Your task to perform on an android device: change keyboard looks Image 0: 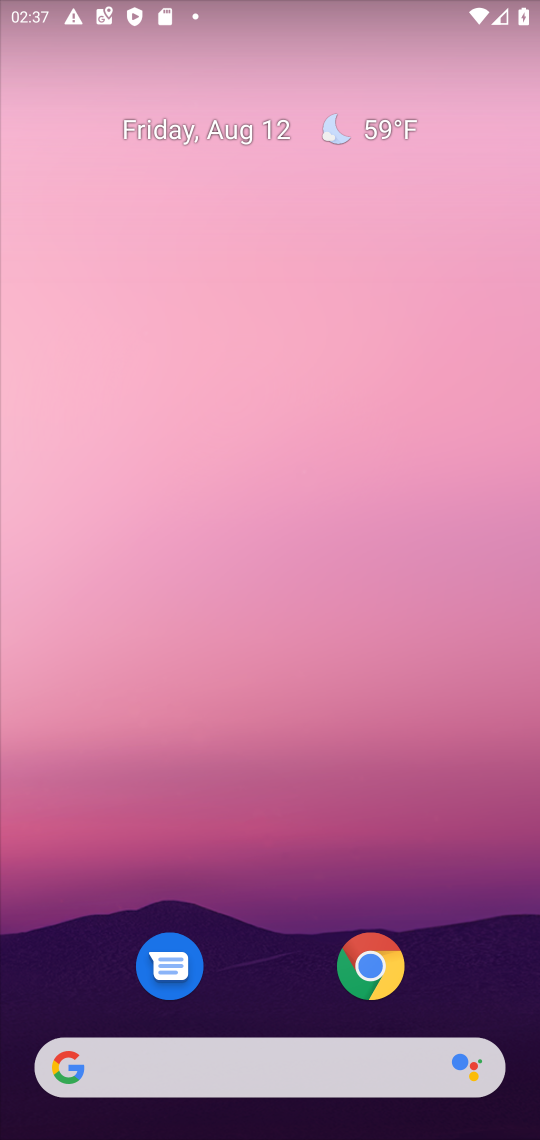
Step 0: drag from (238, 968) to (349, 131)
Your task to perform on an android device: change keyboard looks Image 1: 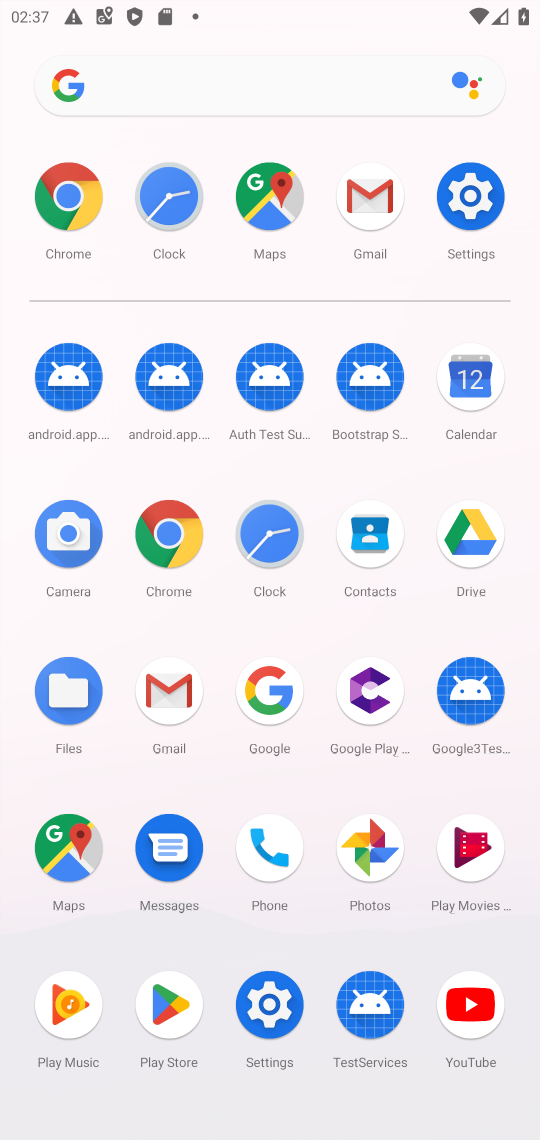
Step 1: click (269, 1017)
Your task to perform on an android device: change keyboard looks Image 2: 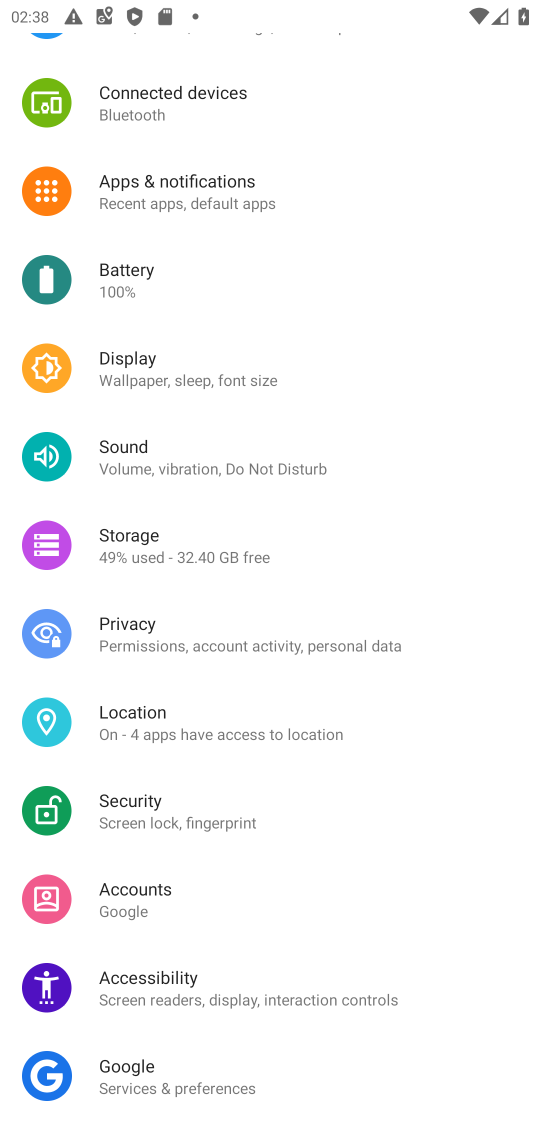
Step 2: drag from (365, 1005) to (424, 258)
Your task to perform on an android device: change keyboard looks Image 3: 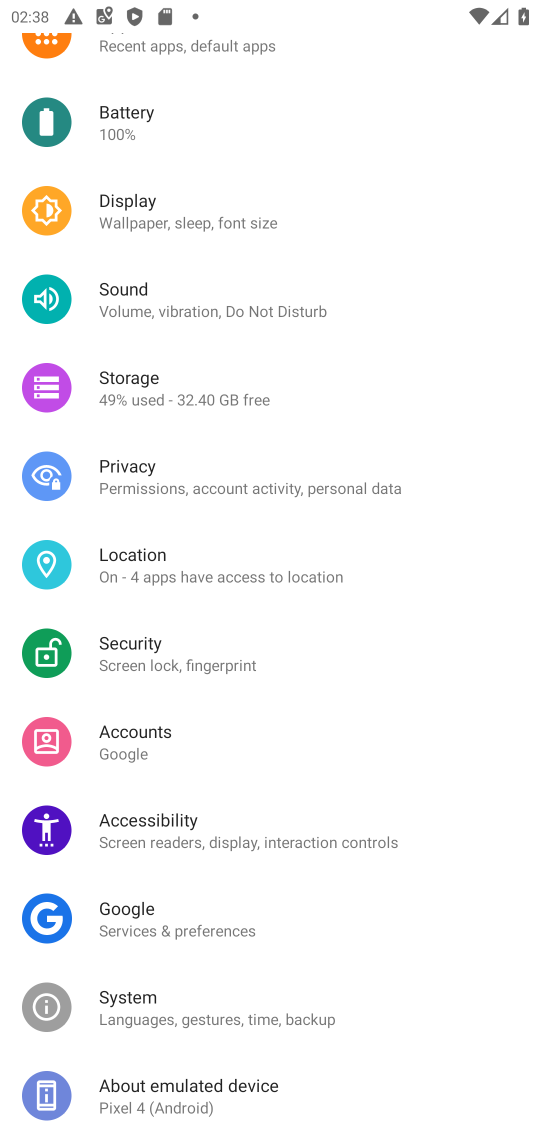
Step 3: click (184, 1015)
Your task to perform on an android device: change keyboard looks Image 4: 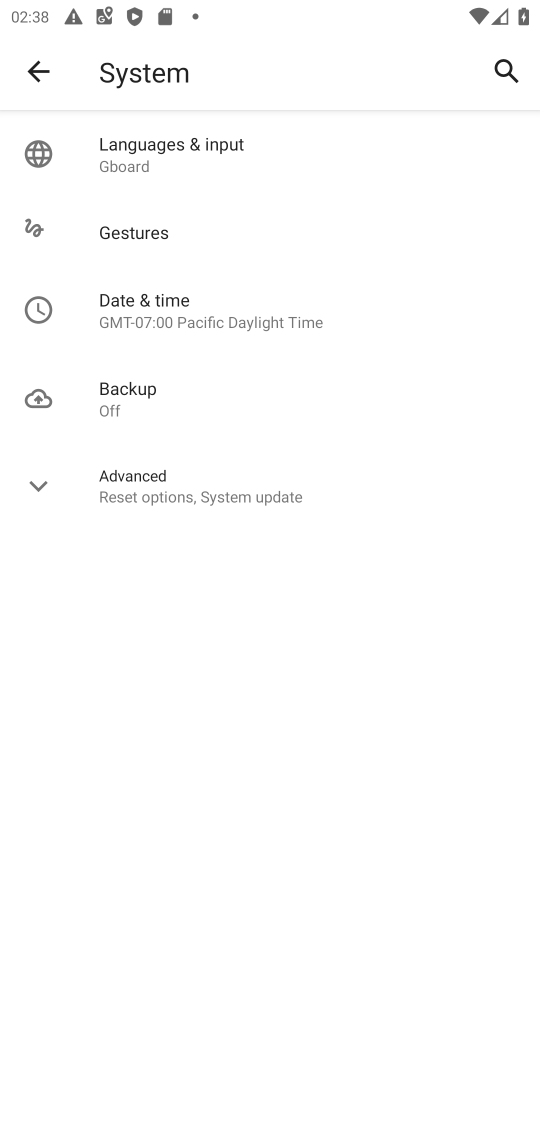
Step 4: click (166, 154)
Your task to perform on an android device: change keyboard looks Image 5: 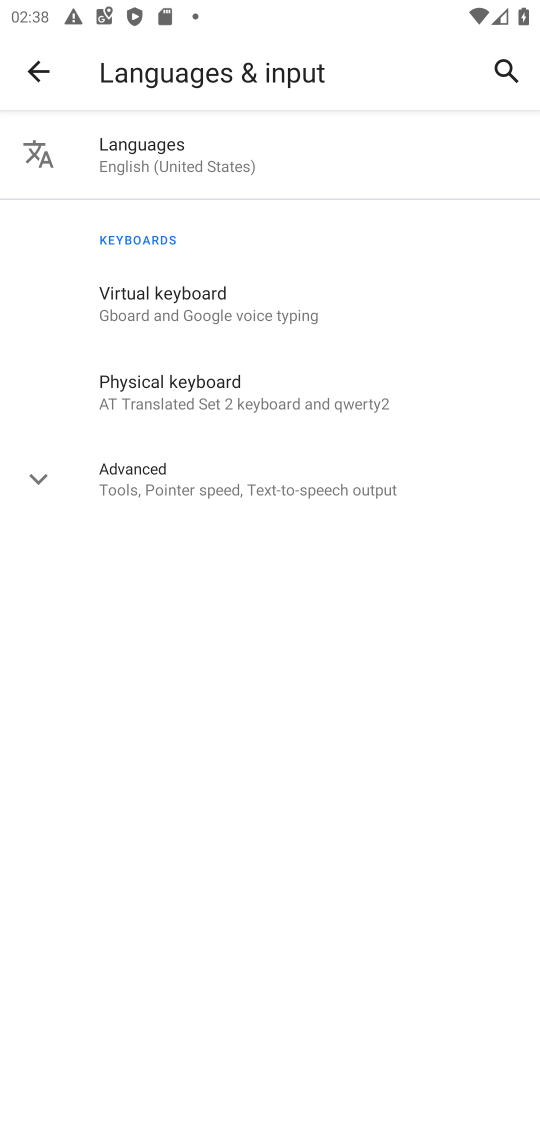
Step 5: click (180, 312)
Your task to perform on an android device: change keyboard looks Image 6: 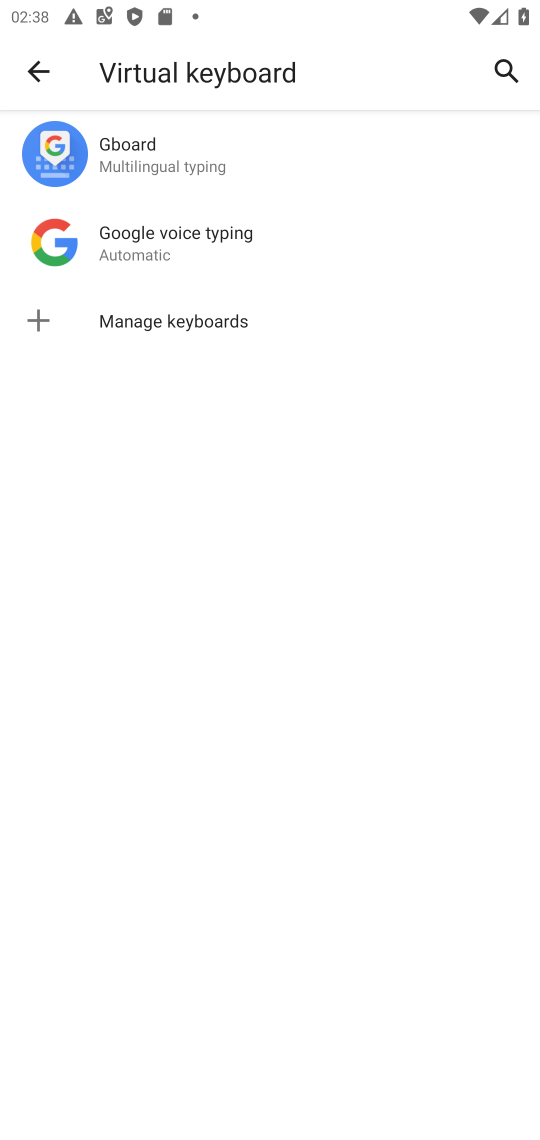
Step 6: click (153, 147)
Your task to perform on an android device: change keyboard looks Image 7: 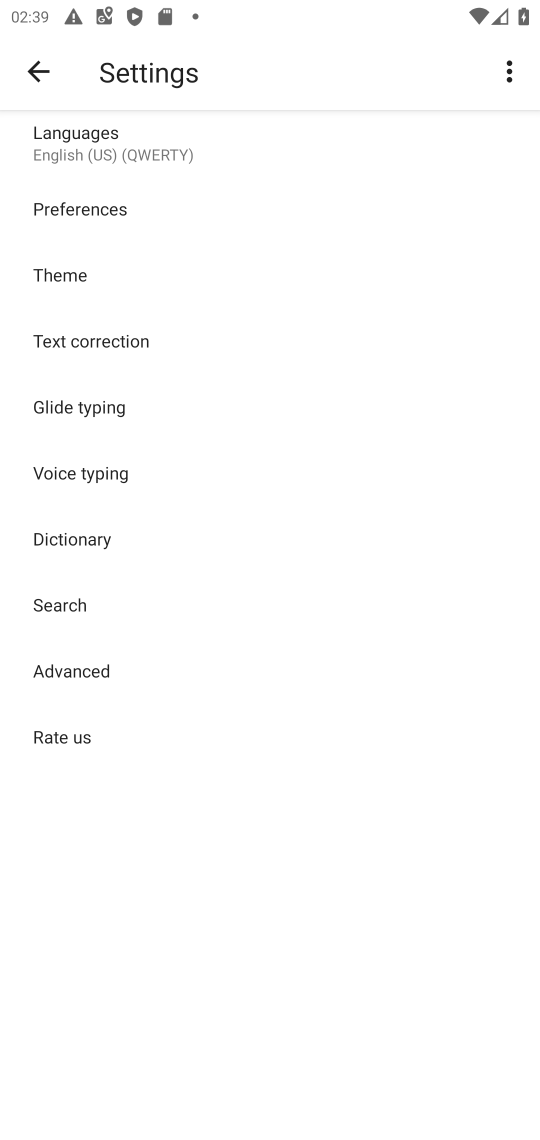
Step 7: click (74, 286)
Your task to perform on an android device: change keyboard looks Image 8: 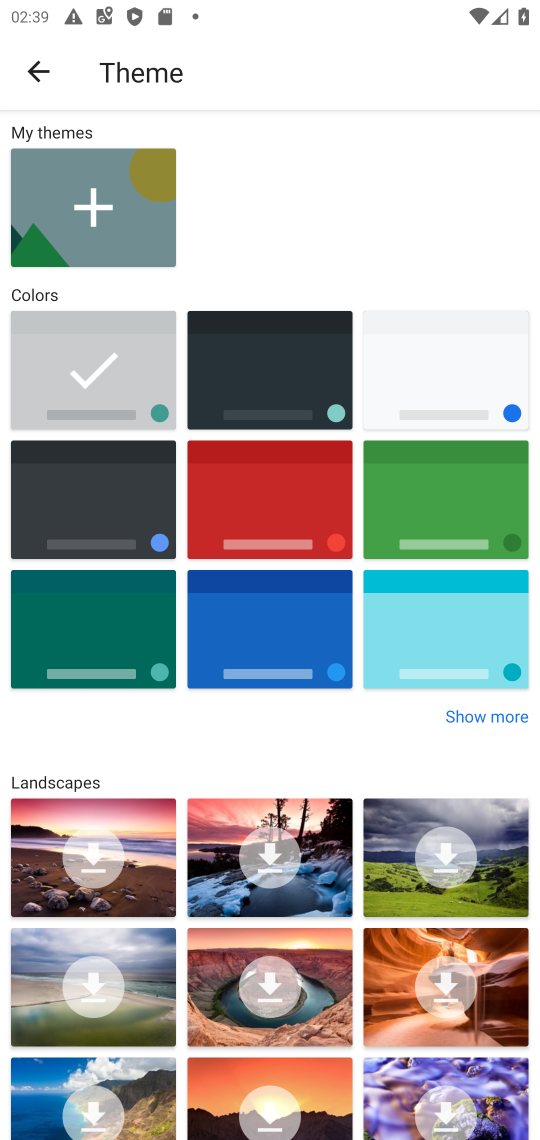
Step 8: click (458, 378)
Your task to perform on an android device: change keyboard looks Image 9: 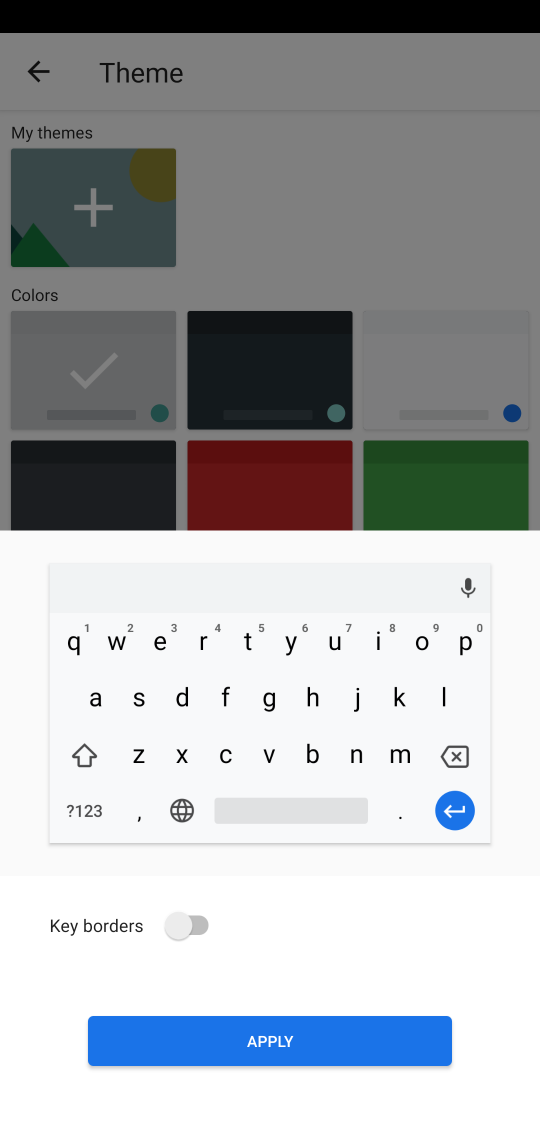
Step 9: click (307, 1043)
Your task to perform on an android device: change keyboard looks Image 10: 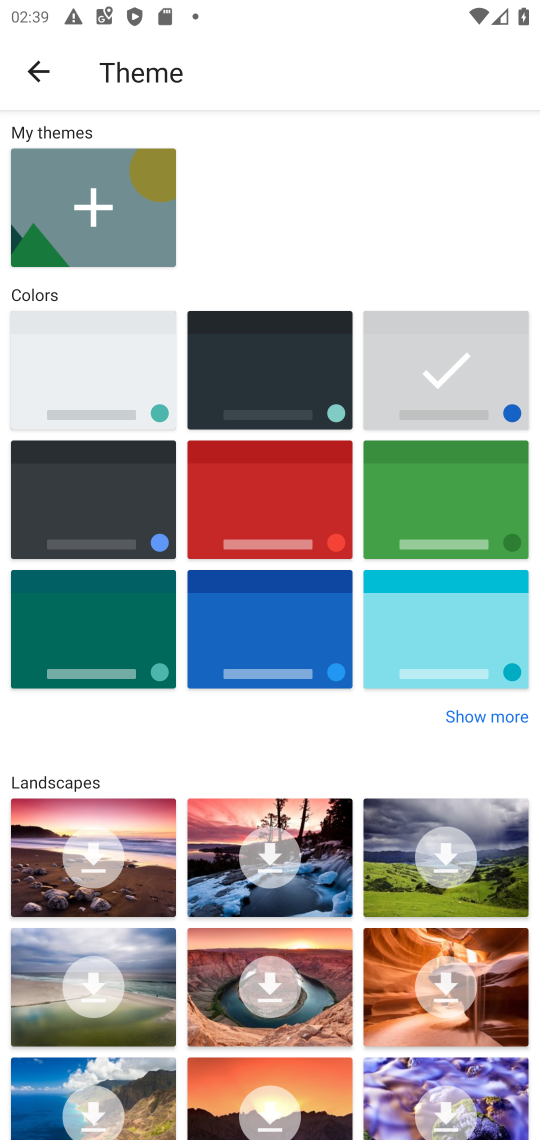
Step 10: task complete